Your task to perform on an android device: set the timer Image 0: 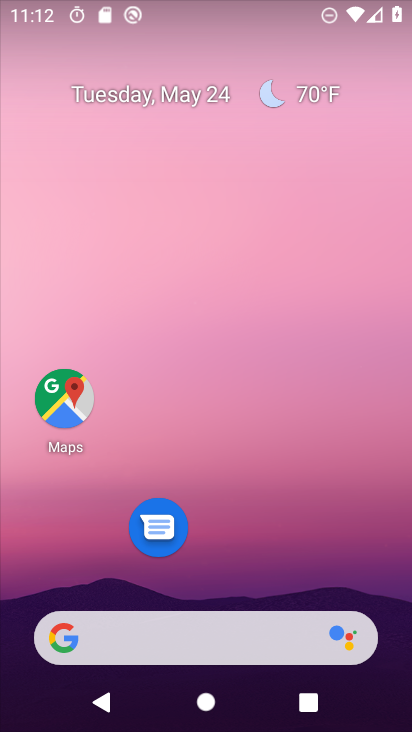
Step 0: drag from (251, 566) to (183, 57)
Your task to perform on an android device: set the timer Image 1: 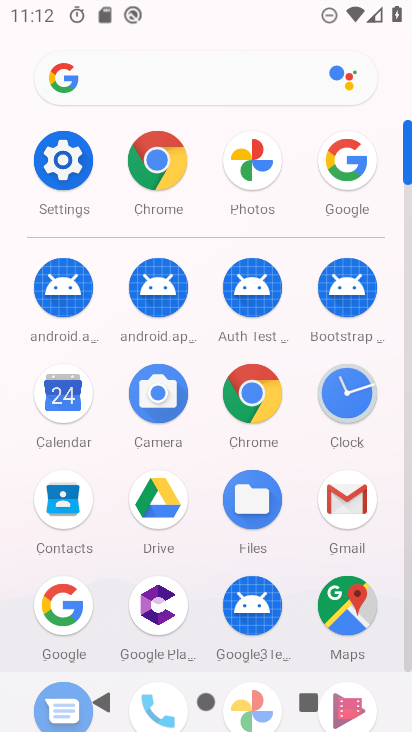
Step 1: click (344, 393)
Your task to perform on an android device: set the timer Image 2: 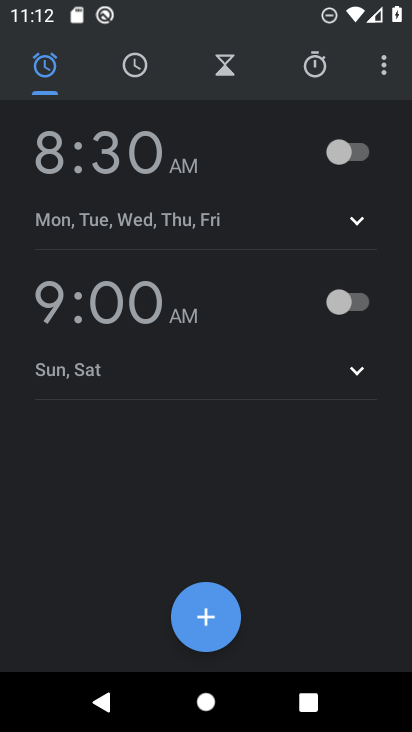
Step 2: click (229, 65)
Your task to perform on an android device: set the timer Image 3: 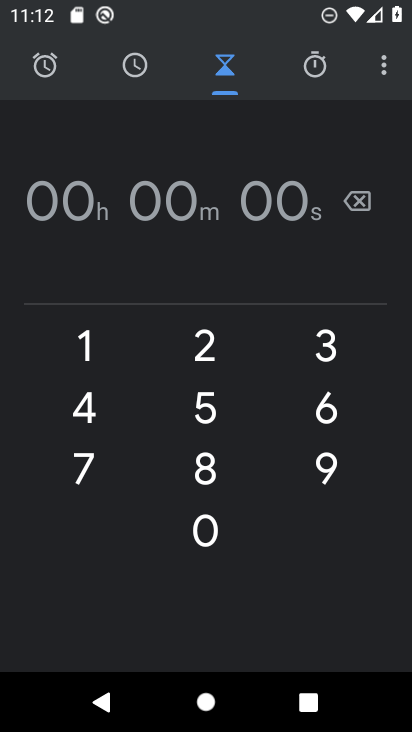
Step 3: click (211, 339)
Your task to perform on an android device: set the timer Image 4: 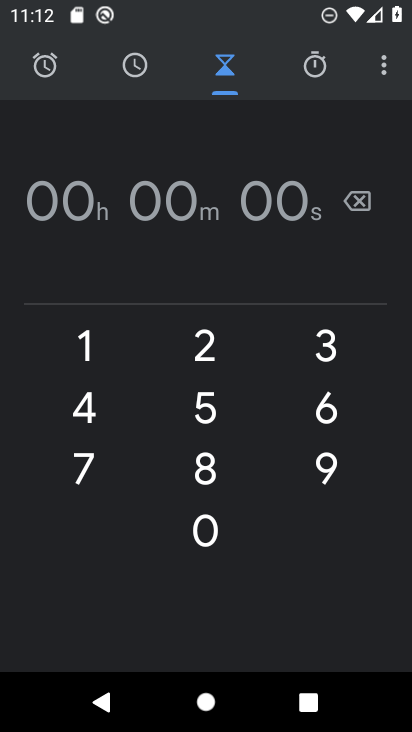
Step 4: click (211, 339)
Your task to perform on an android device: set the timer Image 5: 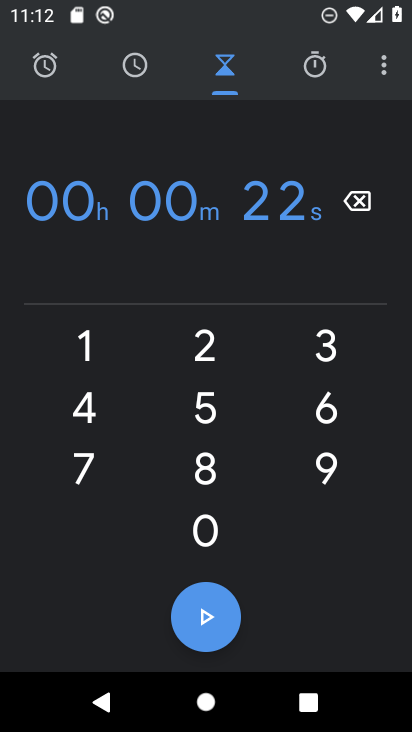
Step 5: task complete